Your task to perform on an android device: toggle javascript in the chrome app Image 0: 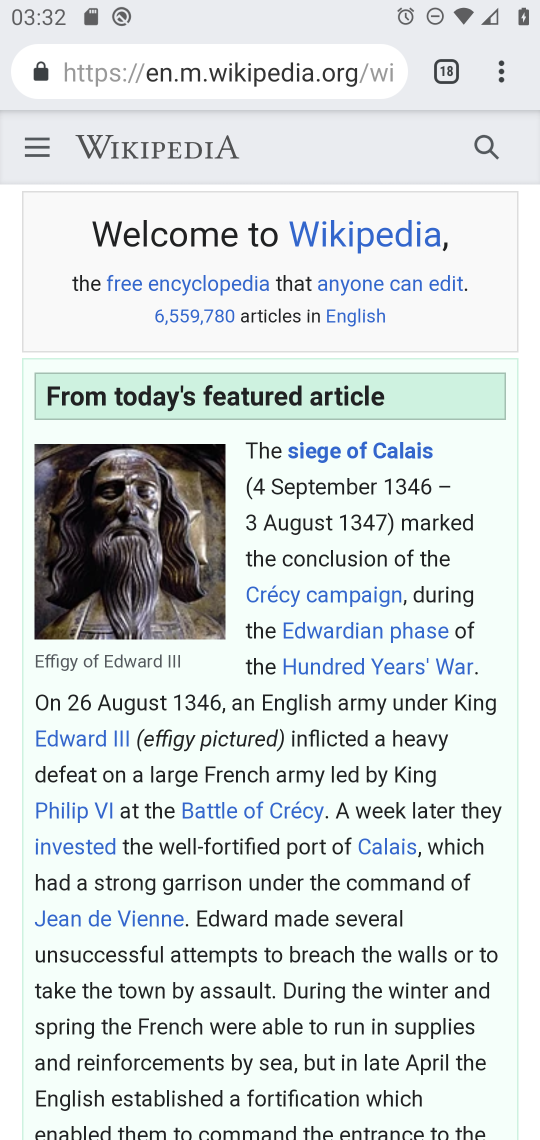
Step 0: click (499, 81)
Your task to perform on an android device: toggle javascript in the chrome app Image 1: 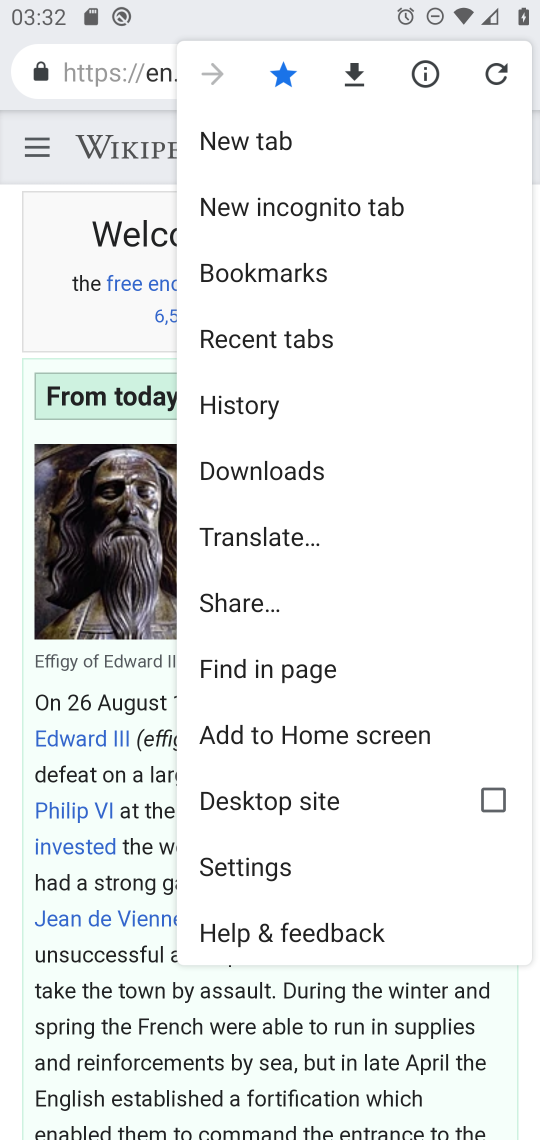
Step 1: click (300, 863)
Your task to perform on an android device: toggle javascript in the chrome app Image 2: 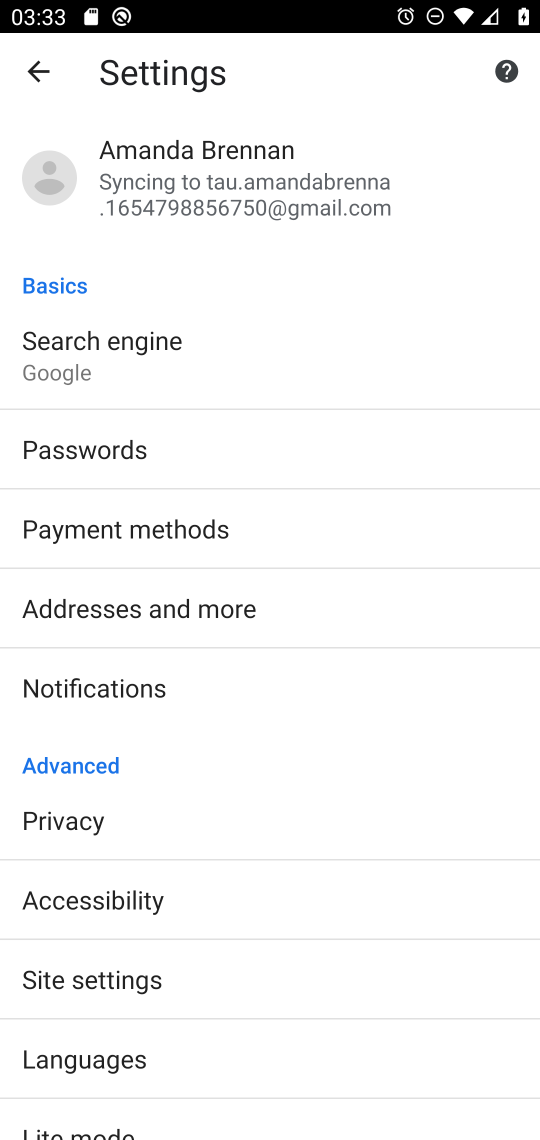
Step 2: click (173, 973)
Your task to perform on an android device: toggle javascript in the chrome app Image 3: 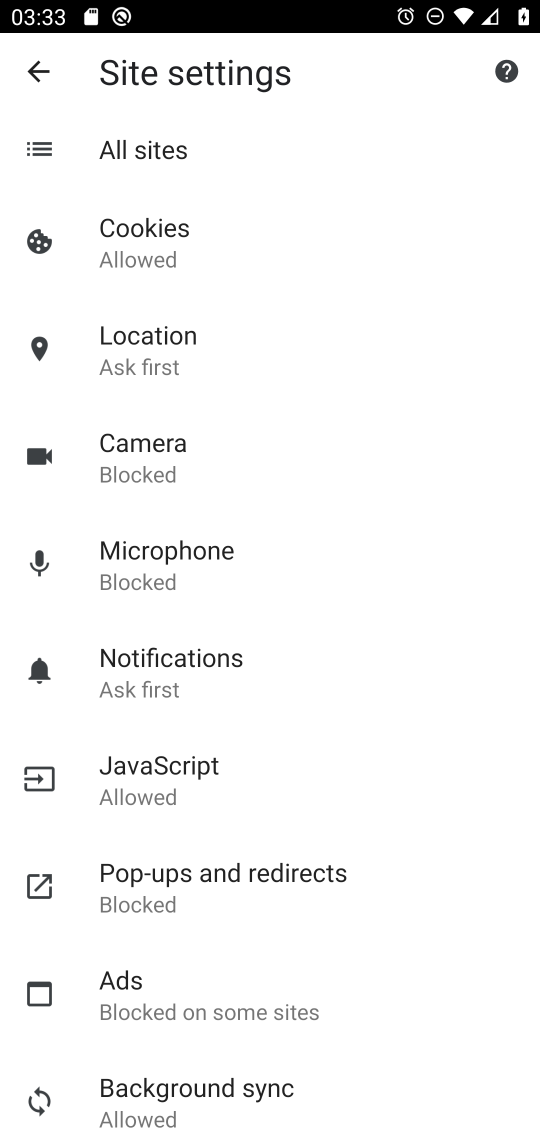
Step 3: click (161, 804)
Your task to perform on an android device: toggle javascript in the chrome app Image 4: 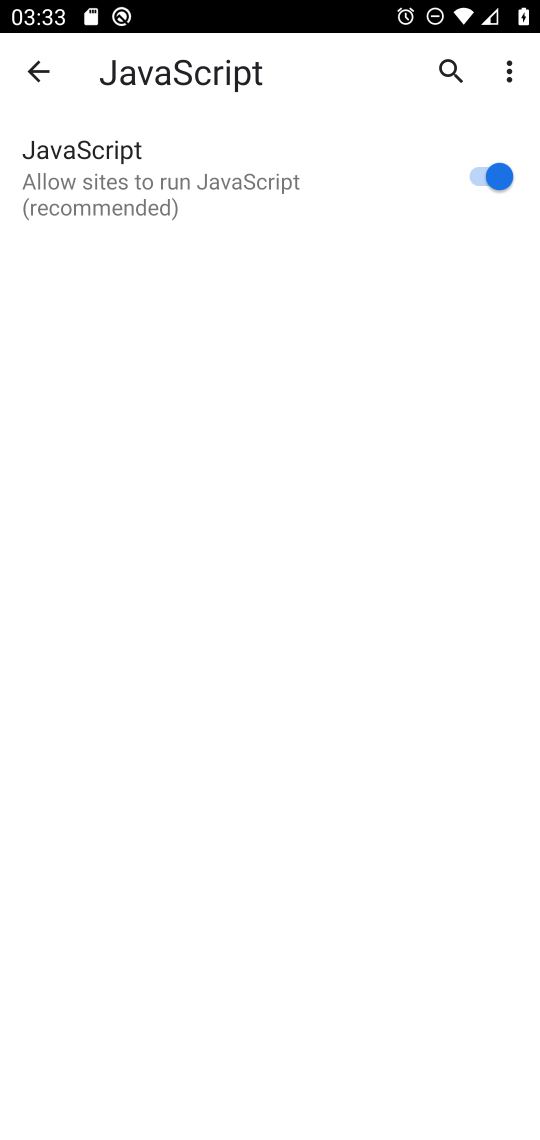
Step 4: click (463, 181)
Your task to perform on an android device: toggle javascript in the chrome app Image 5: 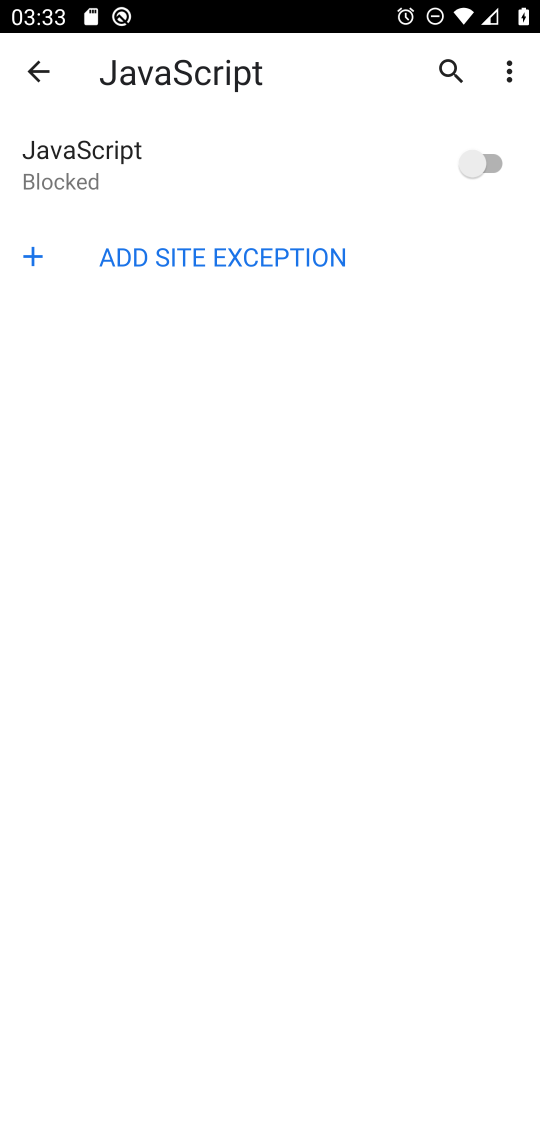
Step 5: task complete